Your task to perform on an android device: Open the Play Movies app and select the watchlist tab. Image 0: 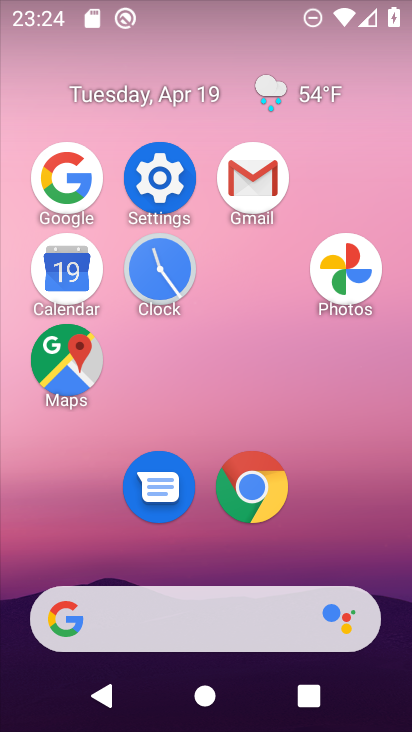
Step 0: drag from (209, 521) to (292, 64)
Your task to perform on an android device: Open the Play Movies app and select the watchlist tab. Image 1: 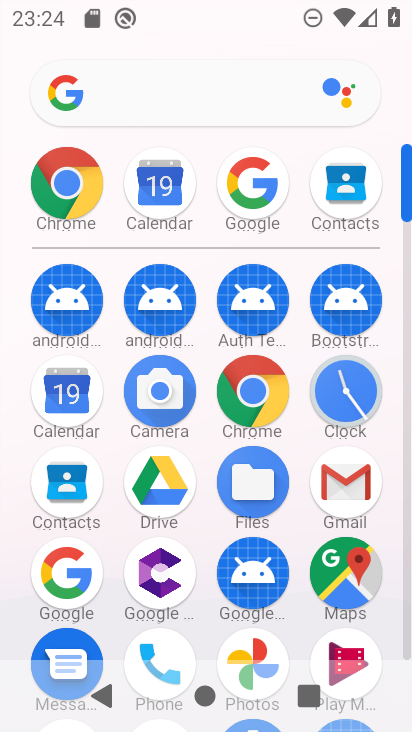
Step 1: drag from (217, 607) to (268, 195)
Your task to perform on an android device: Open the Play Movies app and select the watchlist tab. Image 2: 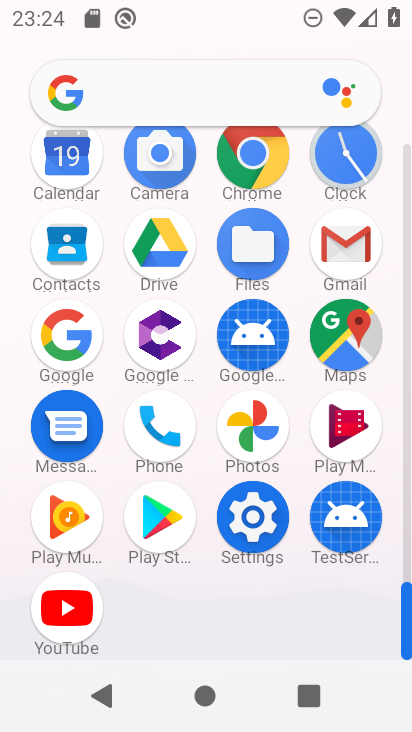
Step 2: click (359, 439)
Your task to perform on an android device: Open the Play Movies app and select the watchlist tab. Image 3: 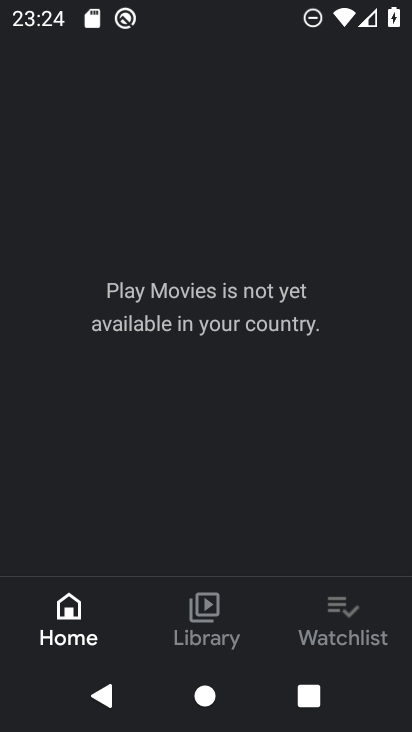
Step 3: click (351, 638)
Your task to perform on an android device: Open the Play Movies app and select the watchlist tab. Image 4: 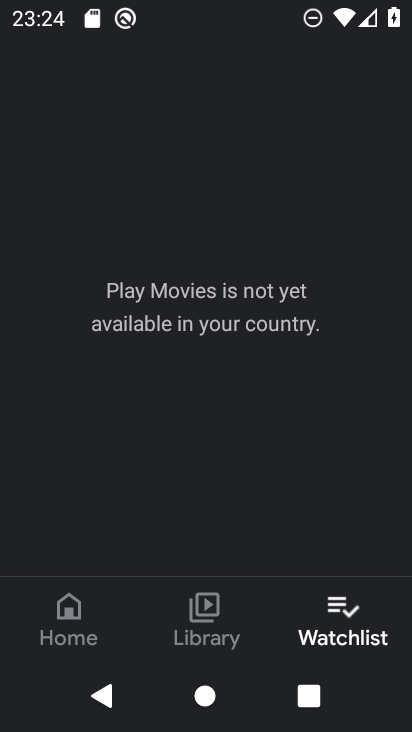
Step 4: task complete